Your task to perform on an android device: Go to sound settings Image 0: 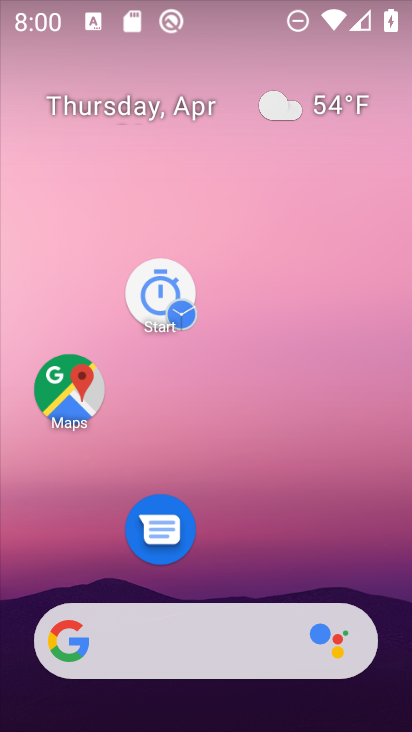
Step 0: drag from (233, 410) to (163, 175)
Your task to perform on an android device: Go to sound settings Image 1: 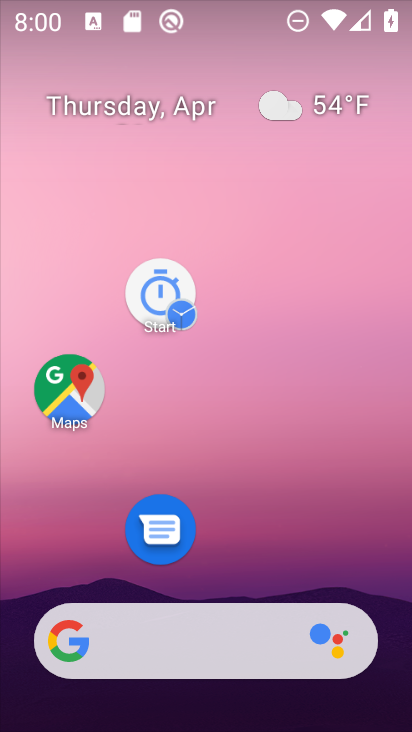
Step 1: drag from (304, 503) to (187, 193)
Your task to perform on an android device: Go to sound settings Image 2: 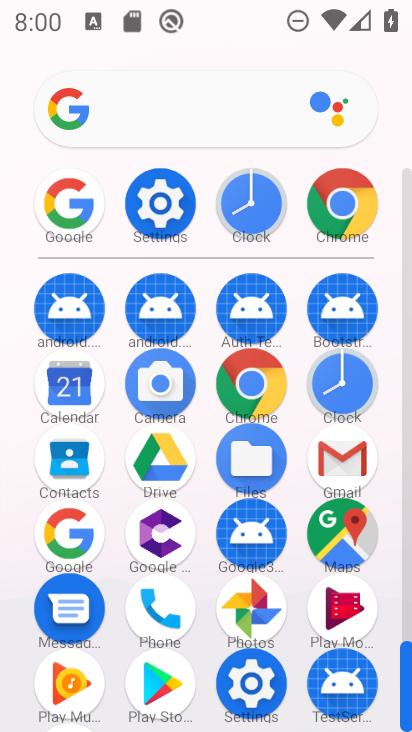
Step 2: click (175, 187)
Your task to perform on an android device: Go to sound settings Image 3: 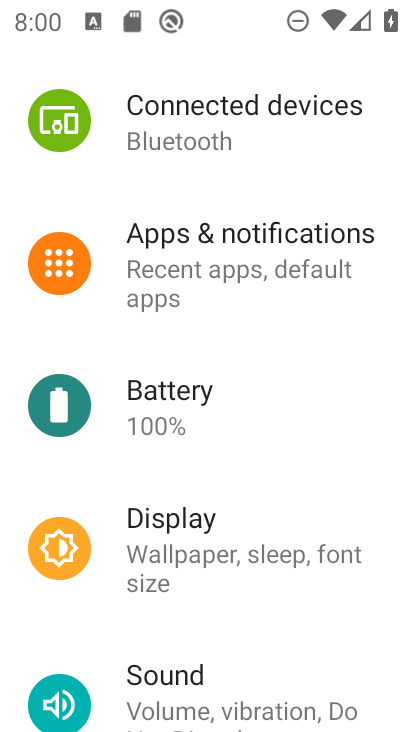
Step 3: click (223, 695)
Your task to perform on an android device: Go to sound settings Image 4: 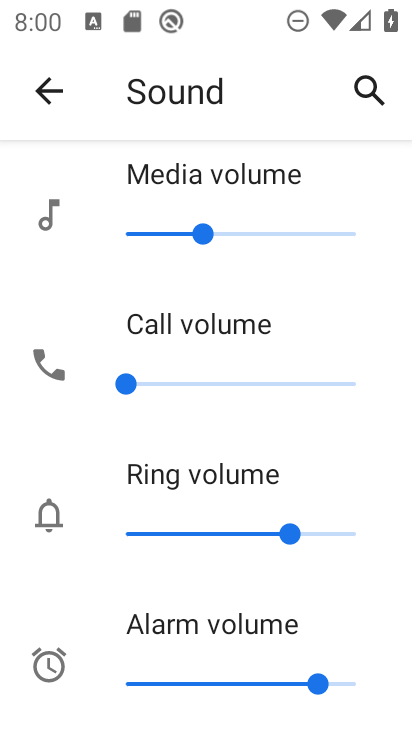
Step 4: task complete